Your task to perform on an android device: Open Android settings Image 0: 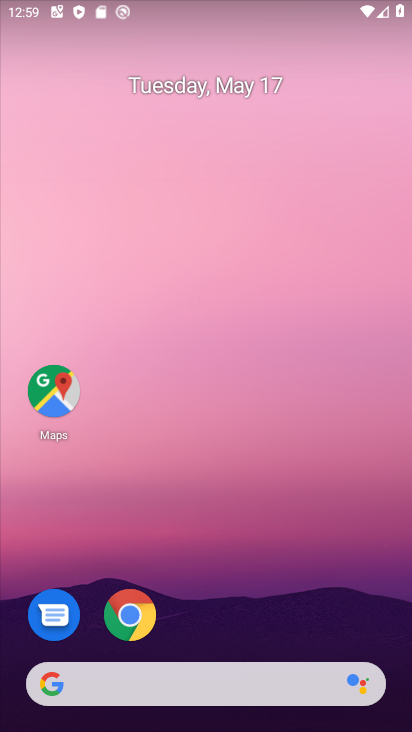
Step 0: drag from (267, 613) to (251, 212)
Your task to perform on an android device: Open Android settings Image 1: 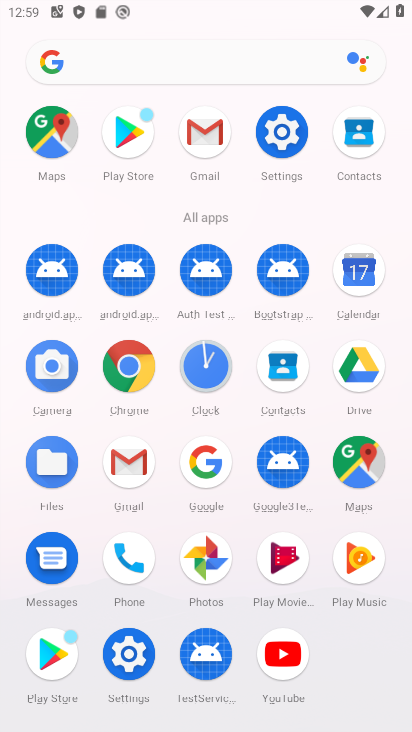
Step 1: click (282, 132)
Your task to perform on an android device: Open Android settings Image 2: 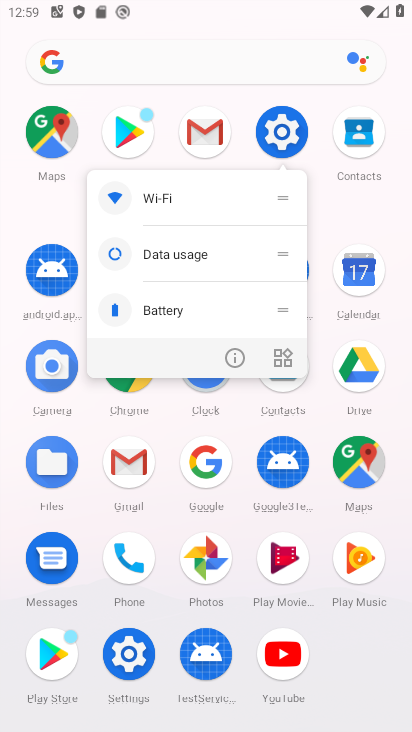
Step 2: click (282, 132)
Your task to perform on an android device: Open Android settings Image 3: 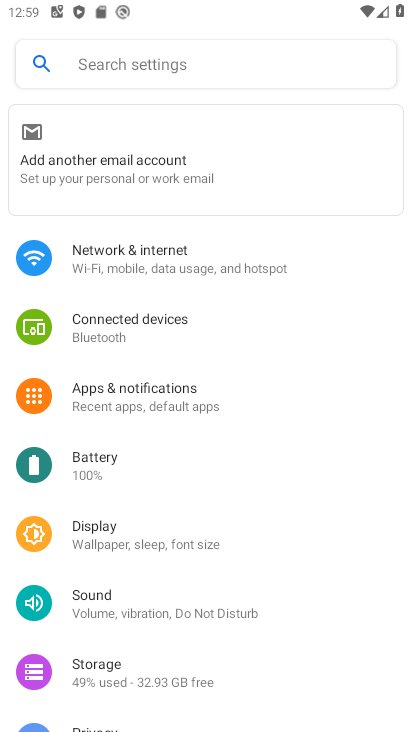
Step 3: task complete